Your task to perform on an android device: see tabs open on other devices in the chrome app Image 0: 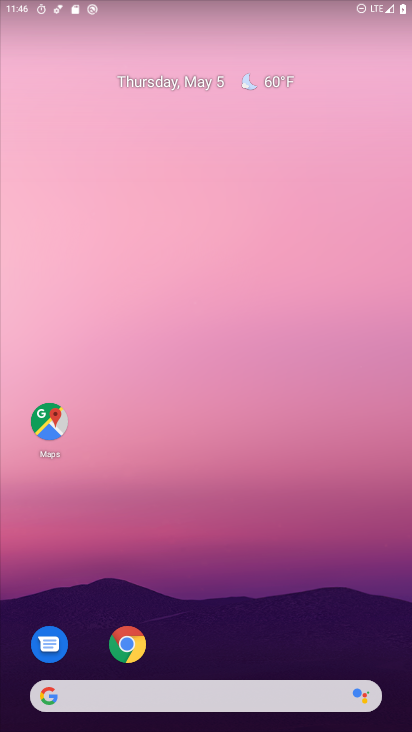
Step 0: drag from (372, 606) to (320, 82)
Your task to perform on an android device: see tabs open on other devices in the chrome app Image 1: 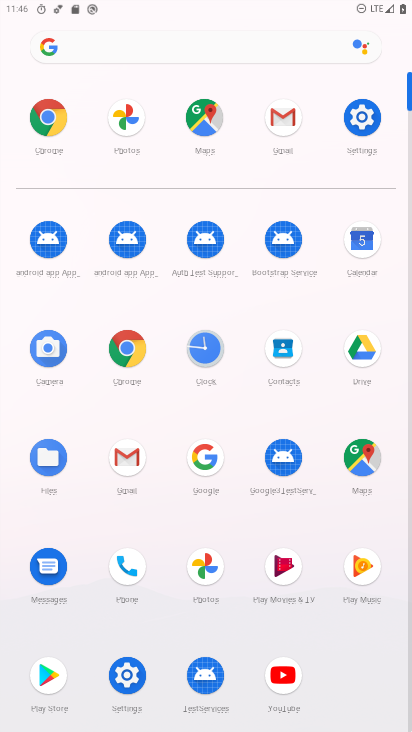
Step 1: click (119, 364)
Your task to perform on an android device: see tabs open on other devices in the chrome app Image 2: 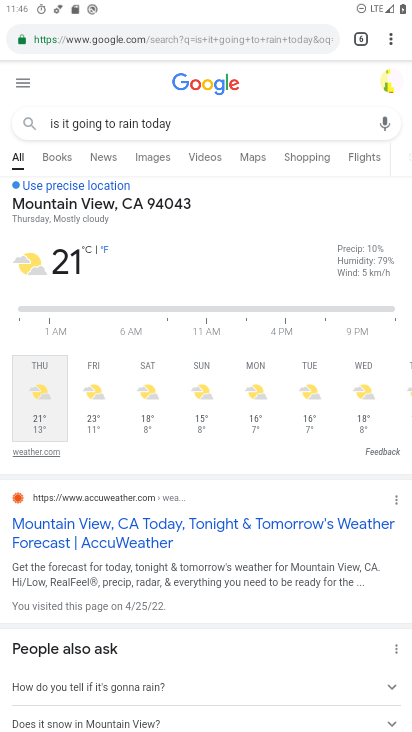
Step 2: click (360, 44)
Your task to perform on an android device: see tabs open on other devices in the chrome app Image 3: 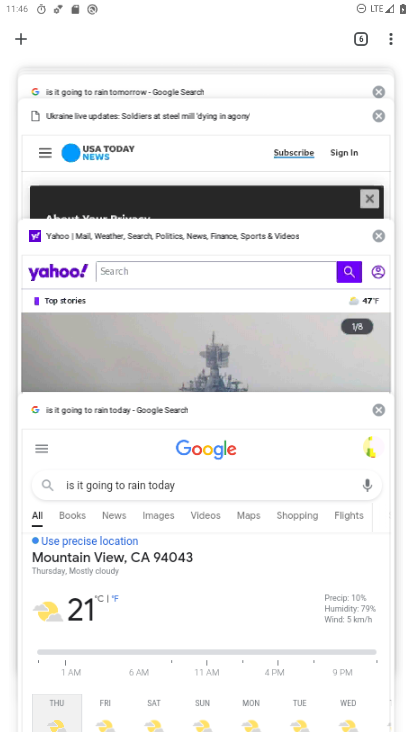
Step 3: task complete